Your task to perform on an android device: change the clock display to digital Image 0: 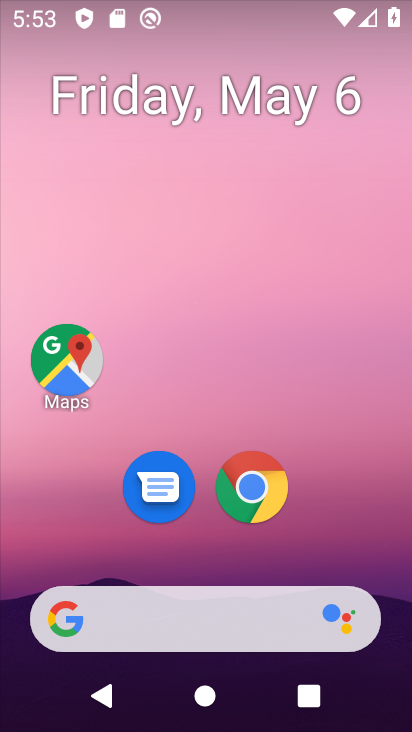
Step 0: drag from (322, 543) to (341, 71)
Your task to perform on an android device: change the clock display to digital Image 1: 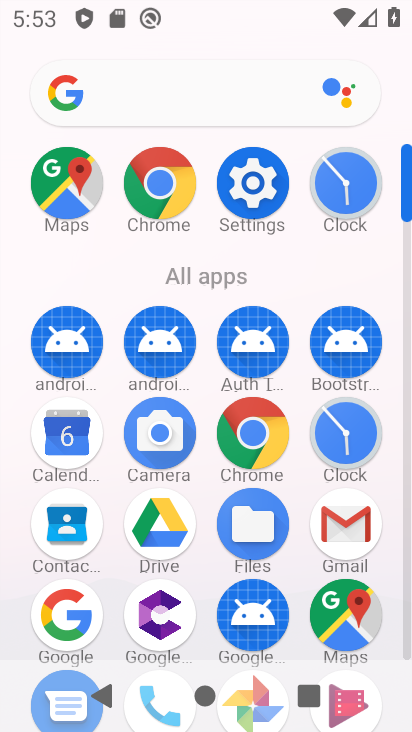
Step 1: click (333, 430)
Your task to perform on an android device: change the clock display to digital Image 2: 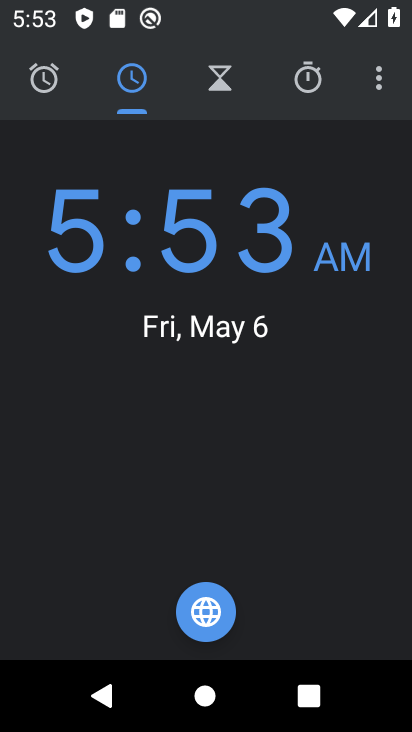
Step 2: click (382, 78)
Your task to perform on an android device: change the clock display to digital Image 3: 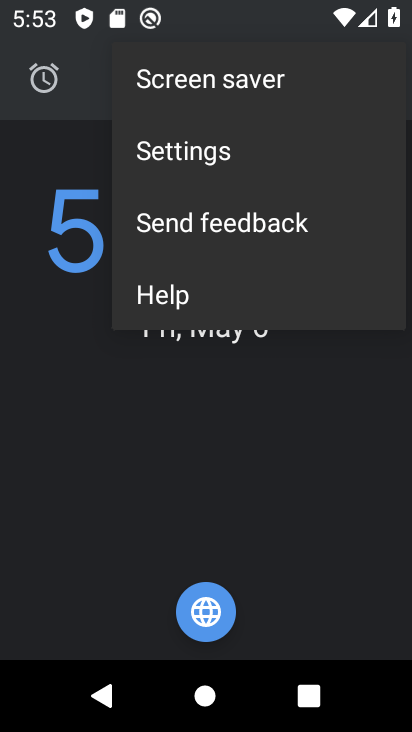
Step 3: click (198, 155)
Your task to perform on an android device: change the clock display to digital Image 4: 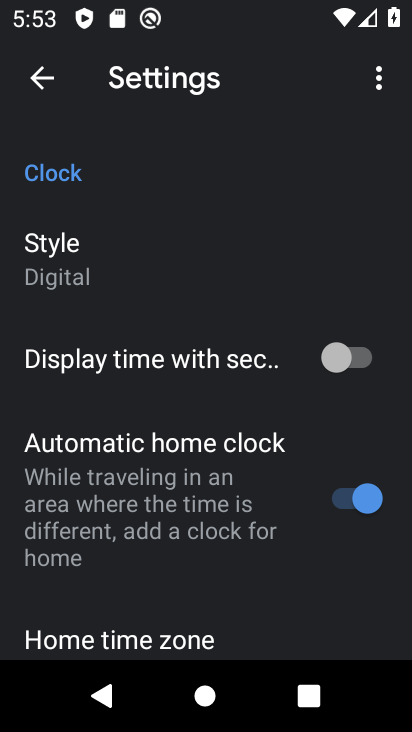
Step 4: click (57, 259)
Your task to perform on an android device: change the clock display to digital Image 5: 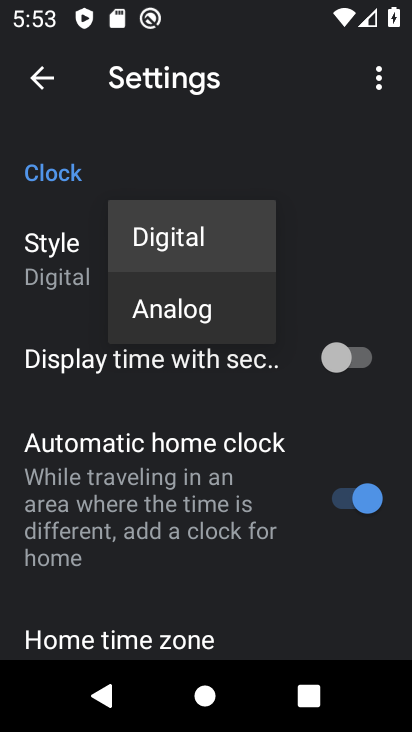
Step 5: click (204, 240)
Your task to perform on an android device: change the clock display to digital Image 6: 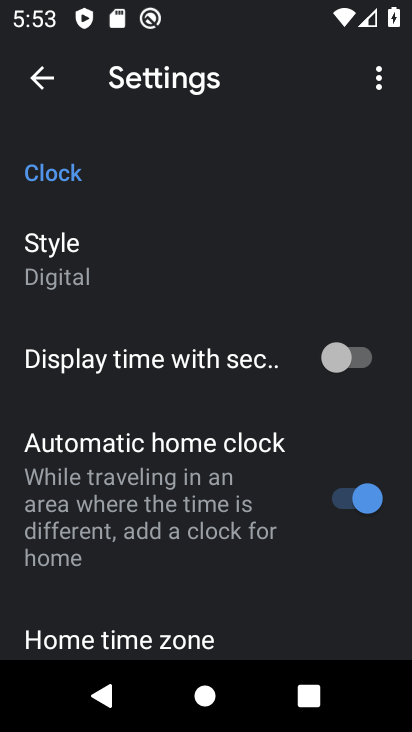
Step 6: task complete